Your task to perform on an android device: install app "VLC for Android" Image 0: 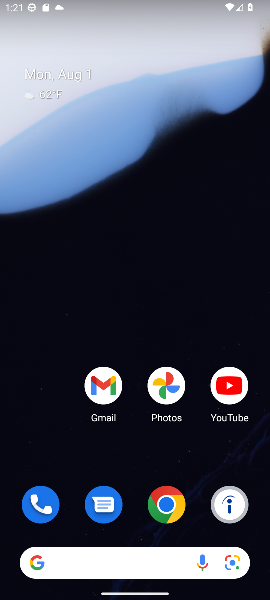
Step 0: drag from (164, 559) to (178, 104)
Your task to perform on an android device: install app "VLC for Android" Image 1: 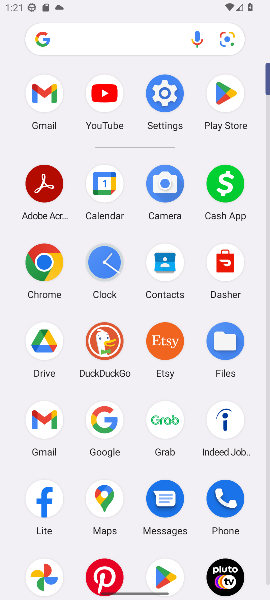
Step 1: click (220, 97)
Your task to perform on an android device: install app "VLC for Android" Image 2: 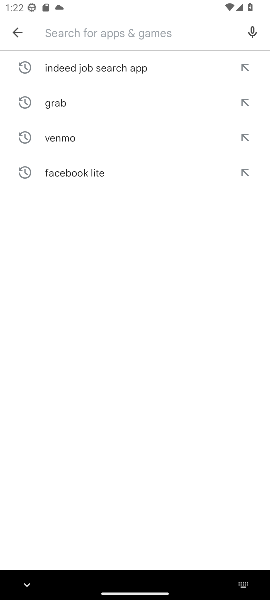
Step 2: type "vlc for android"
Your task to perform on an android device: install app "VLC for Android" Image 3: 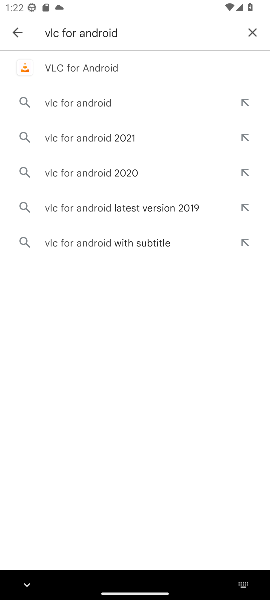
Step 3: click (124, 63)
Your task to perform on an android device: install app "VLC for Android" Image 4: 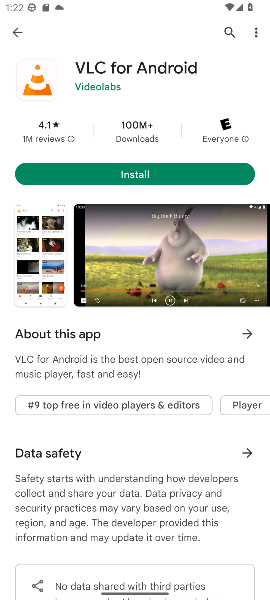
Step 4: click (136, 174)
Your task to perform on an android device: install app "VLC for Android" Image 5: 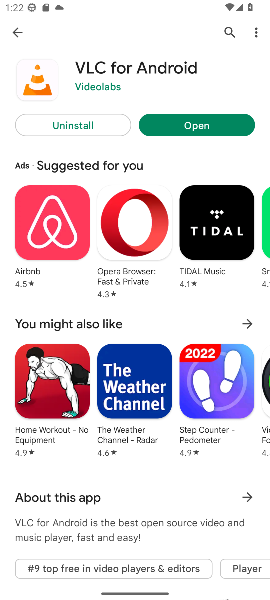
Step 5: task complete